Your task to perform on an android device: set the timer Image 0: 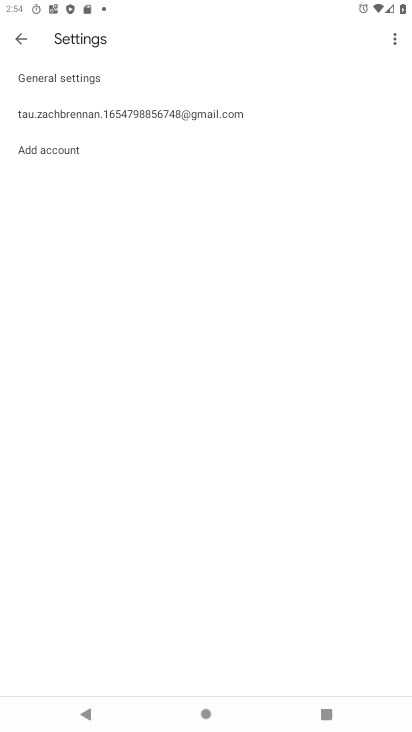
Step 0: press home button
Your task to perform on an android device: set the timer Image 1: 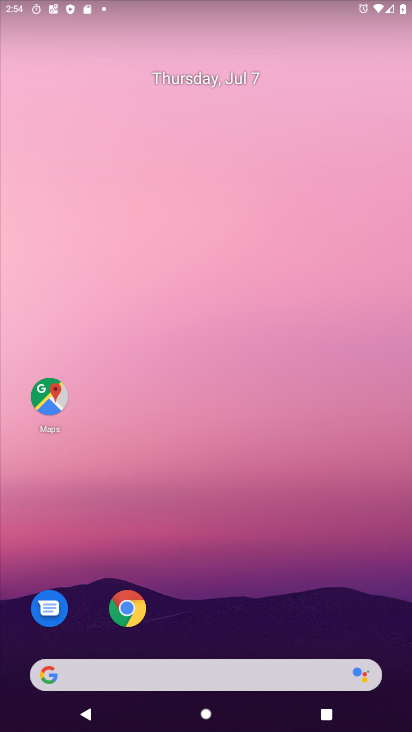
Step 1: drag from (246, 723) to (248, 154)
Your task to perform on an android device: set the timer Image 2: 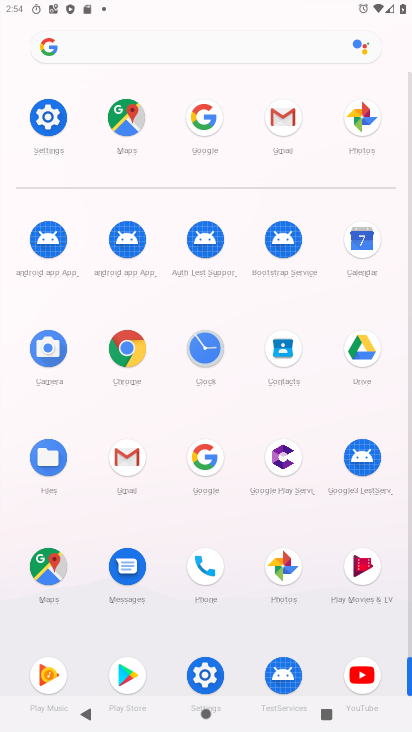
Step 2: click (206, 343)
Your task to perform on an android device: set the timer Image 3: 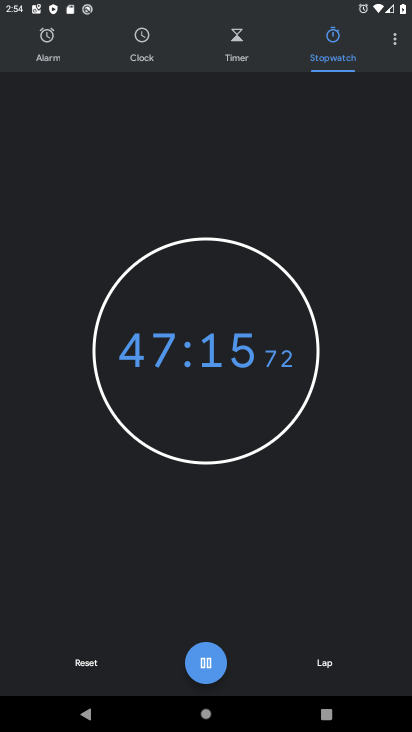
Step 3: click (239, 50)
Your task to perform on an android device: set the timer Image 4: 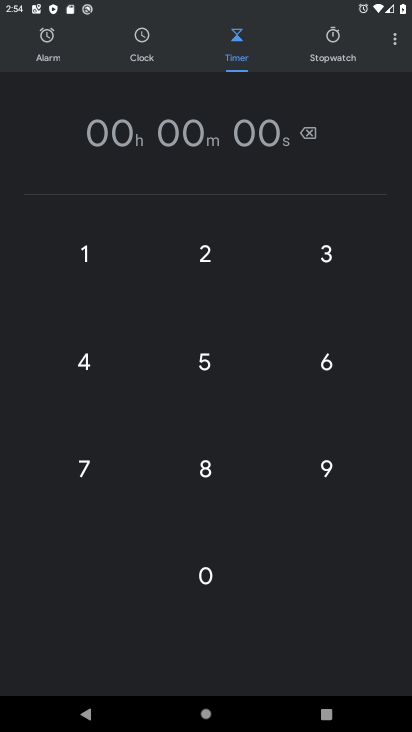
Step 4: click (204, 360)
Your task to perform on an android device: set the timer Image 5: 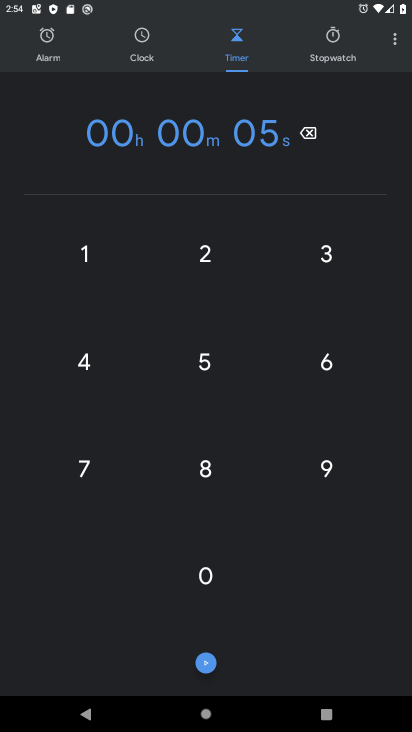
Step 5: click (202, 258)
Your task to perform on an android device: set the timer Image 6: 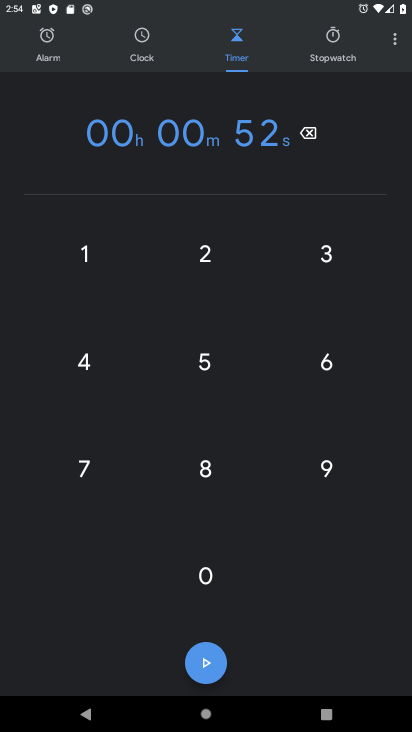
Step 6: click (80, 364)
Your task to perform on an android device: set the timer Image 7: 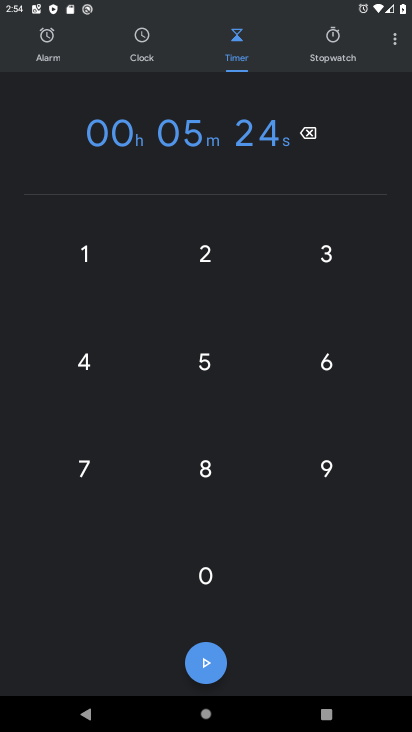
Step 7: click (211, 660)
Your task to perform on an android device: set the timer Image 8: 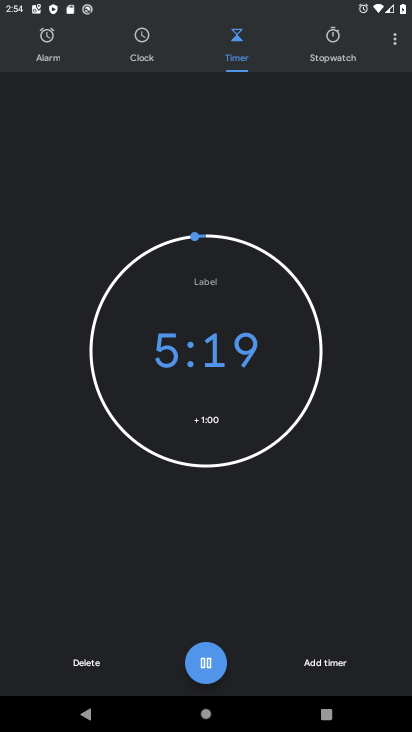
Step 8: task complete